Your task to perform on an android device: Open CNN.com Image 0: 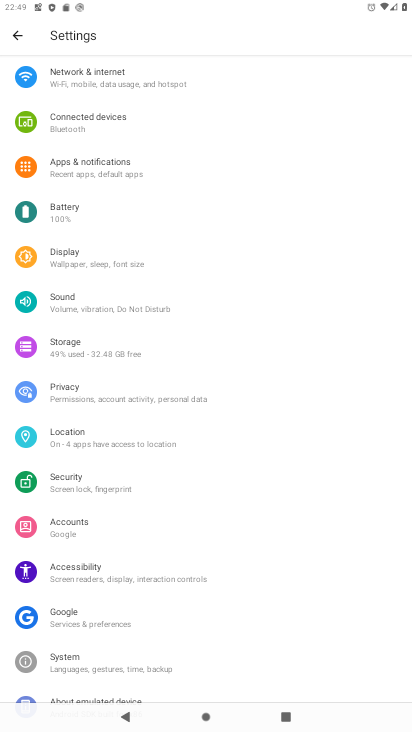
Step 0: press home button
Your task to perform on an android device: Open CNN.com Image 1: 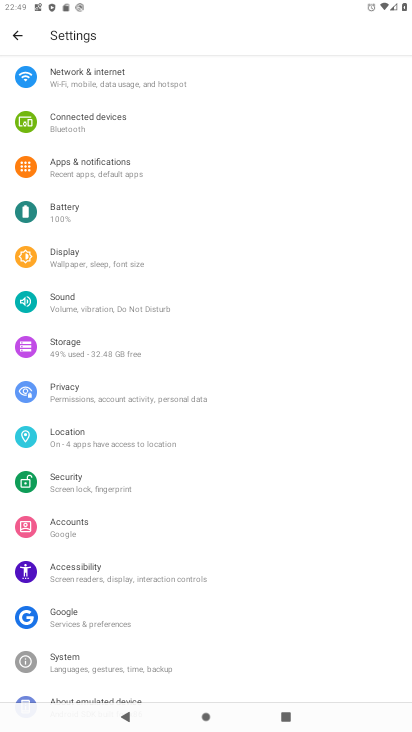
Step 1: drag from (281, 619) to (232, 23)
Your task to perform on an android device: Open CNN.com Image 2: 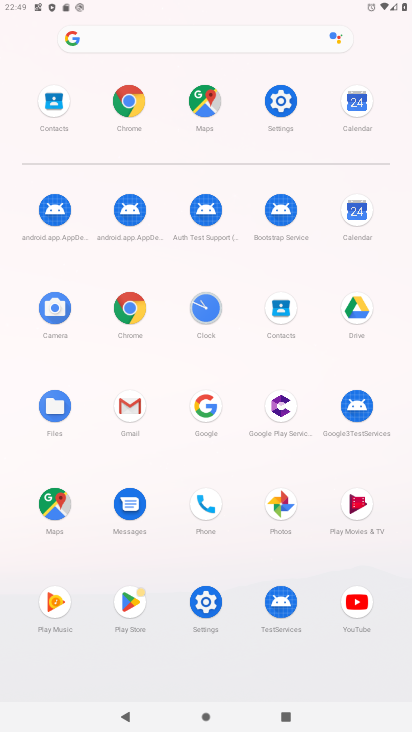
Step 2: click (126, 36)
Your task to perform on an android device: Open CNN.com Image 3: 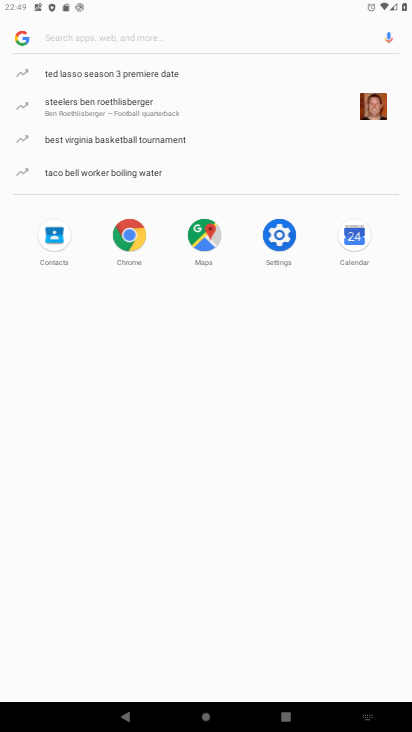
Step 3: type "CNN.com"
Your task to perform on an android device: Open CNN.com Image 4: 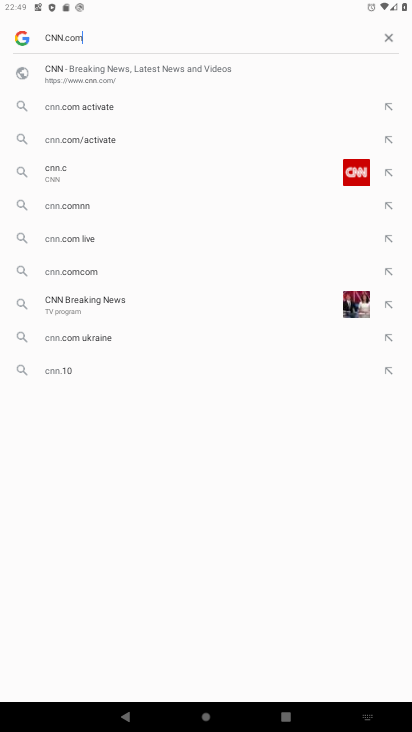
Step 4: type ""
Your task to perform on an android device: Open CNN.com Image 5: 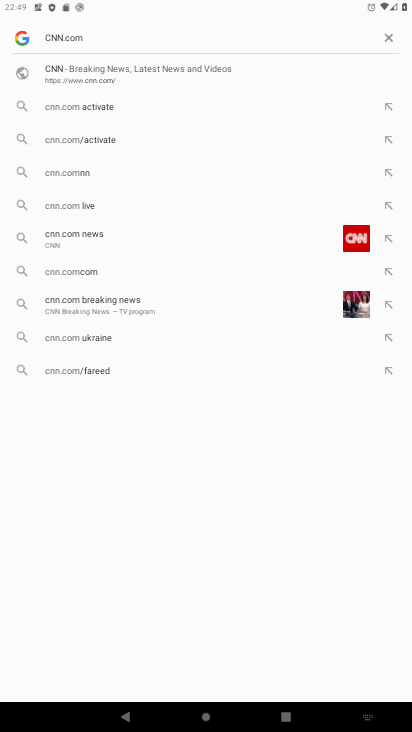
Step 5: click (89, 77)
Your task to perform on an android device: Open CNN.com Image 6: 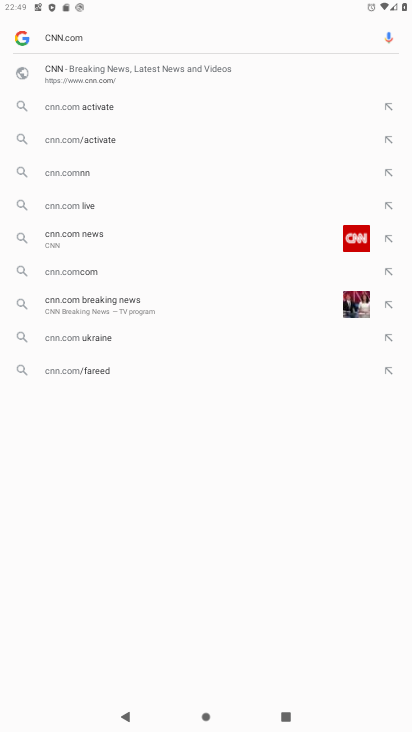
Step 6: task complete